Your task to perform on an android device: open app "PlayWell" (install if not already installed) Image 0: 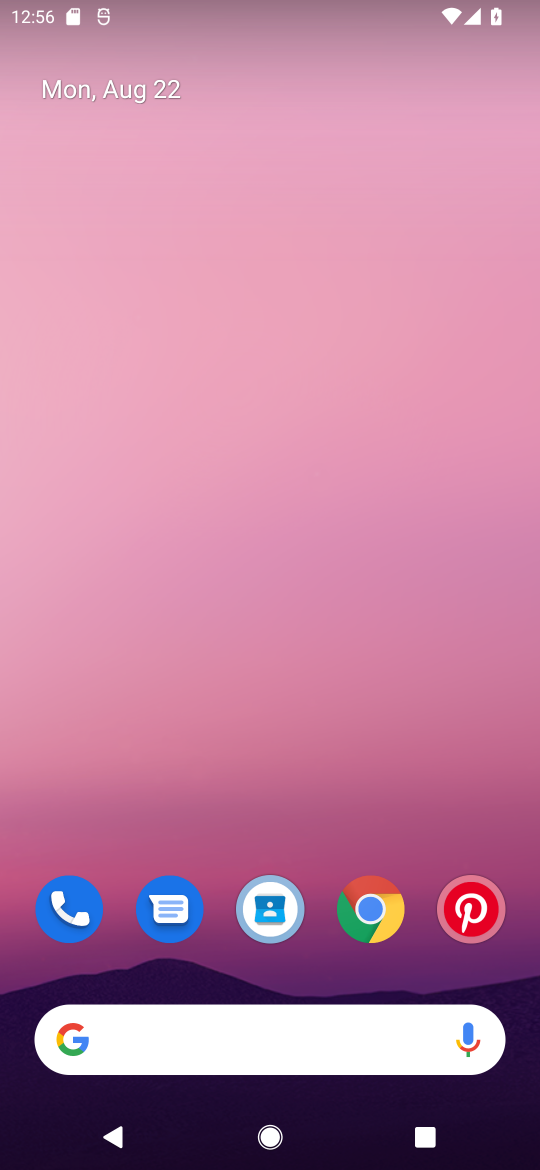
Step 0: drag from (256, 937) to (356, 64)
Your task to perform on an android device: open app "PlayWell" (install if not already installed) Image 1: 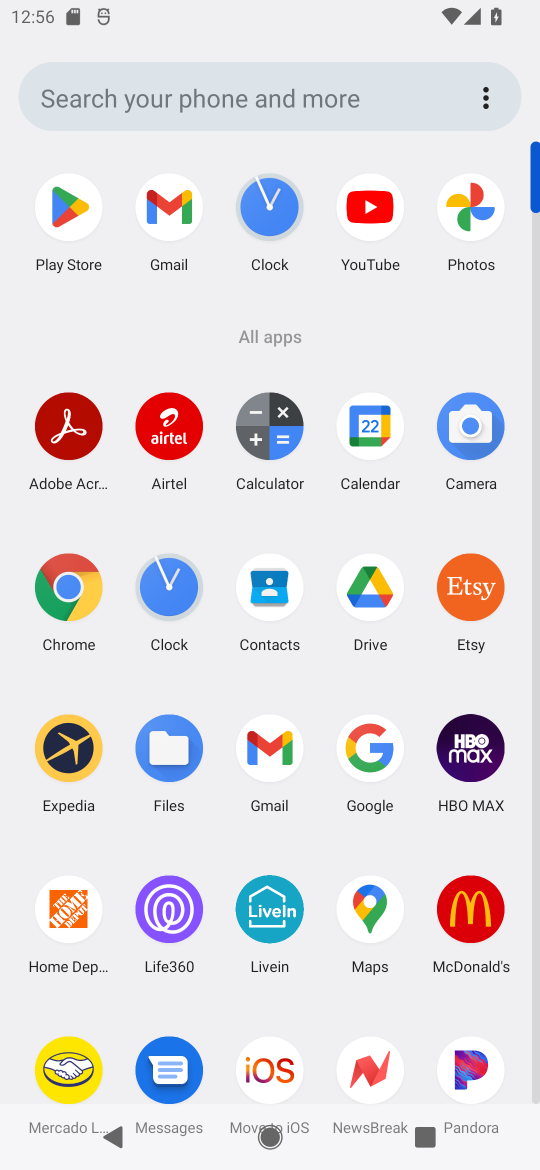
Step 1: click (49, 202)
Your task to perform on an android device: open app "PlayWell" (install if not already installed) Image 2: 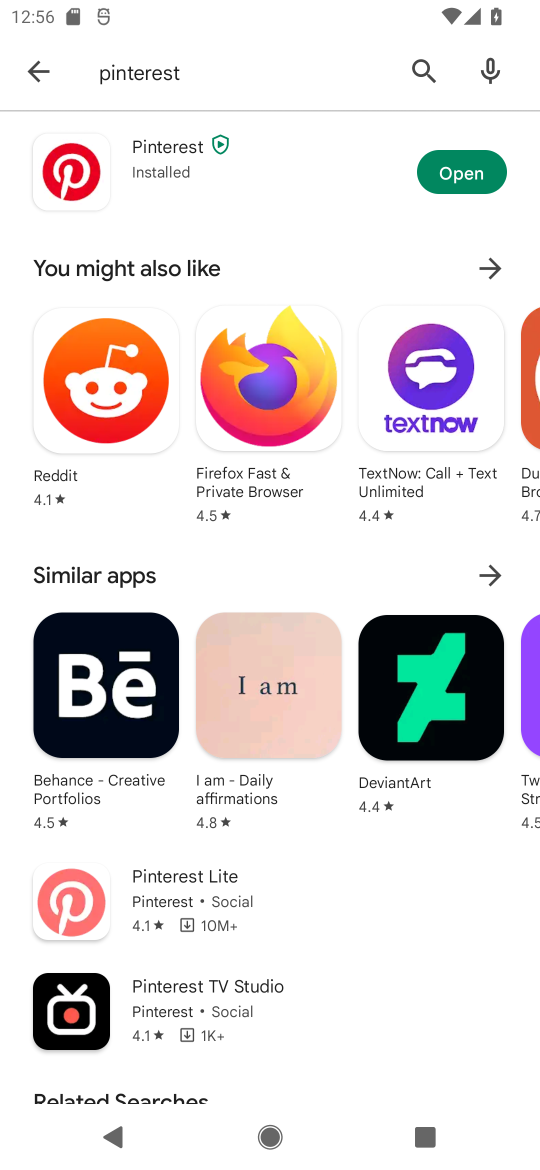
Step 2: click (429, 56)
Your task to perform on an android device: open app "PlayWell" (install if not already installed) Image 3: 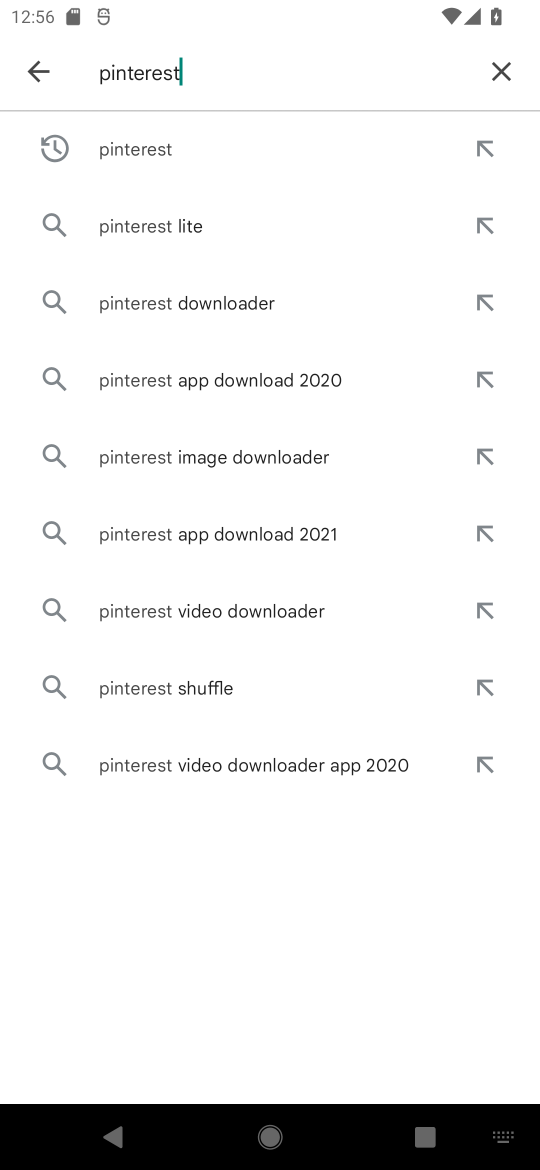
Step 3: click (485, 63)
Your task to perform on an android device: open app "PlayWell" (install if not already installed) Image 4: 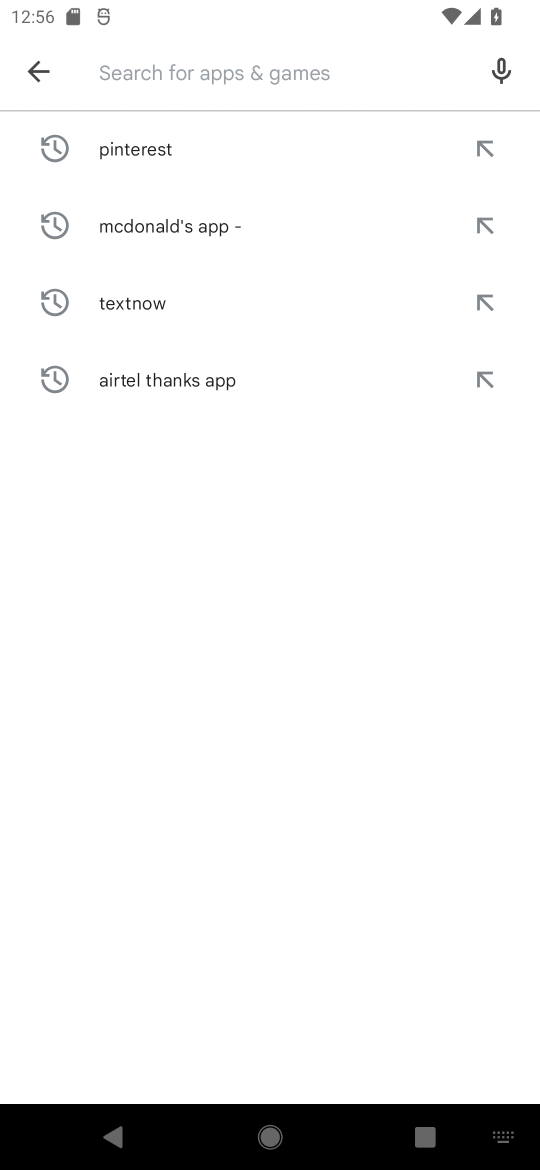
Step 4: click (159, 72)
Your task to perform on an android device: open app "PlayWell" (install if not already installed) Image 5: 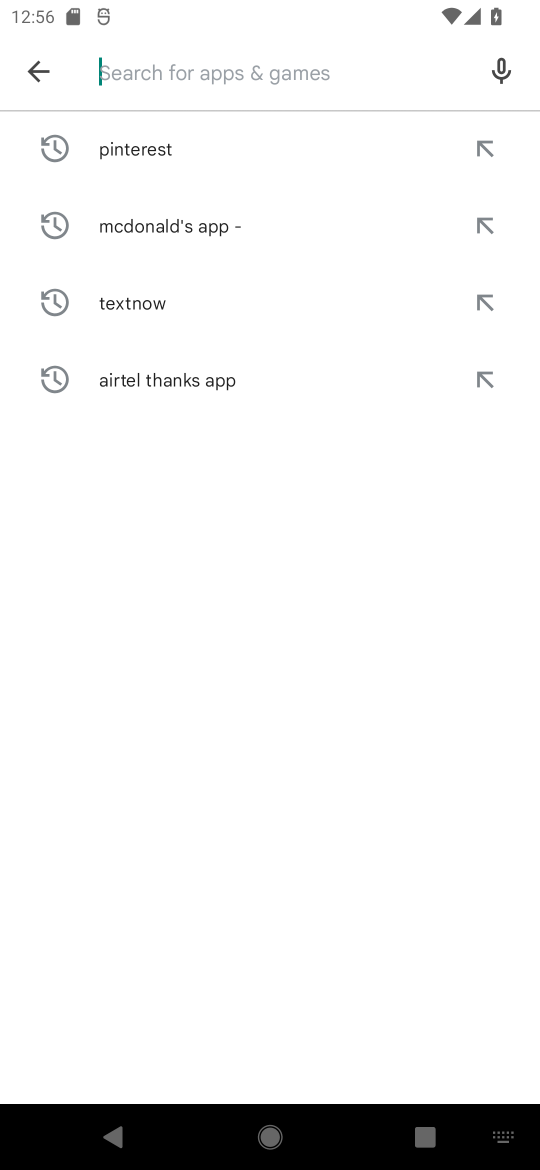
Step 5: type "playwell"
Your task to perform on an android device: open app "PlayWell" (install if not already installed) Image 6: 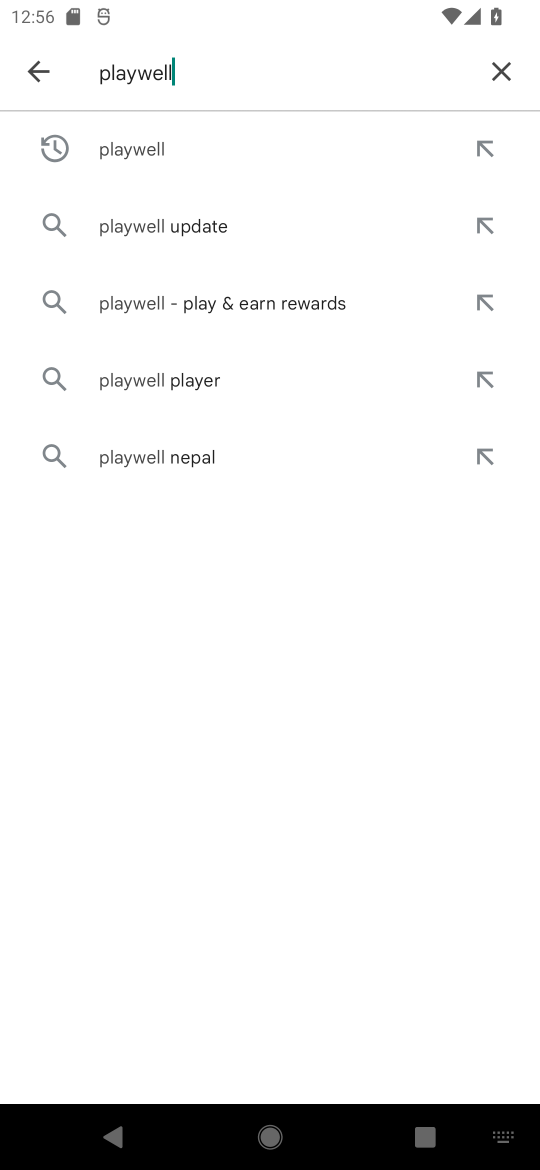
Step 6: click (227, 150)
Your task to perform on an android device: open app "PlayWell" (install if not already installed) Image 7: 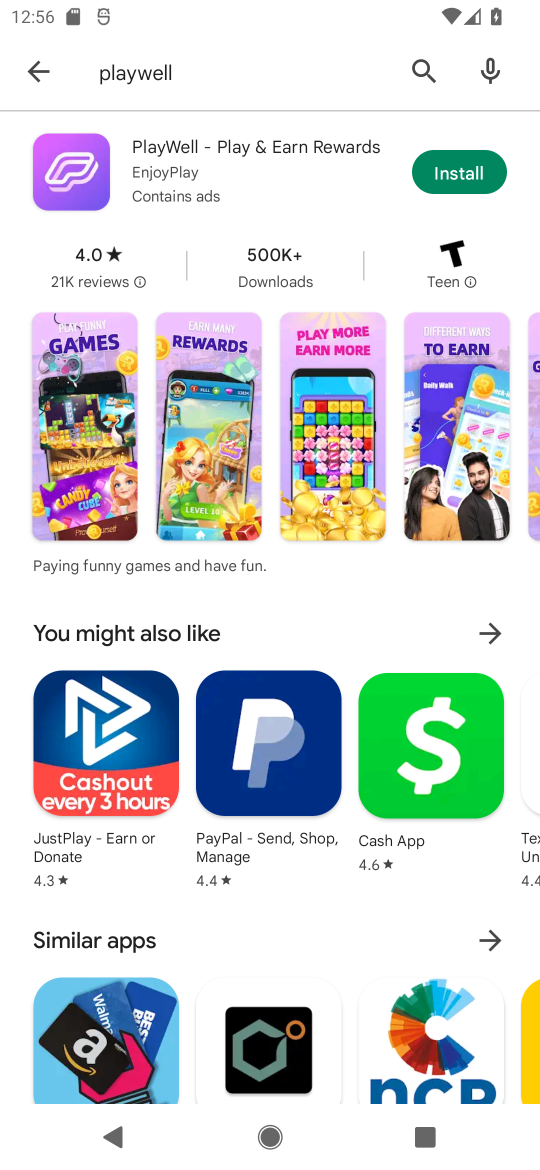
Step 7: click (474, 172)
Your task to perform on an android device: open app "PlayWell" (install if not already installed) Image 8: 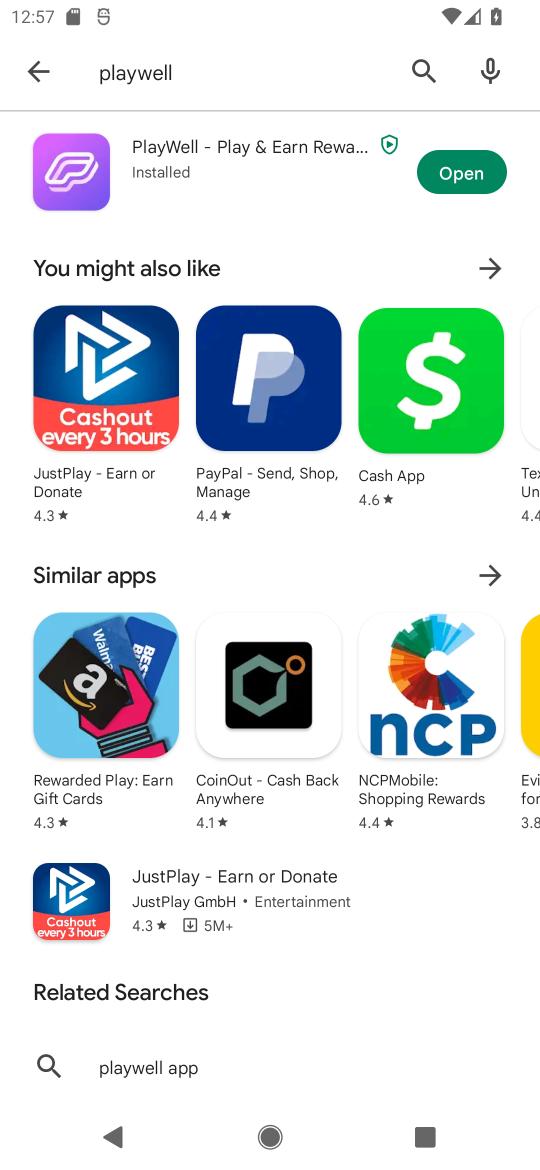
Step 8: click (452, 166)
Your task to perform on an android device: open app "PlayWell" (install if not already installed) Image 9: 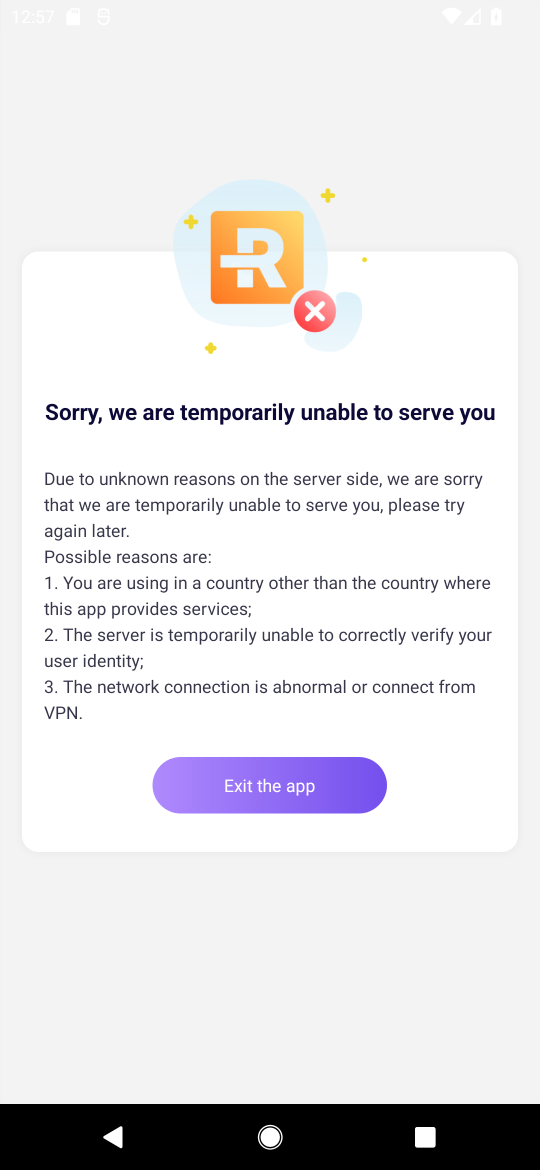
Step 9: task complete